Your task to perform on an android device: Where can I buy a nice beach bag? Image 0: 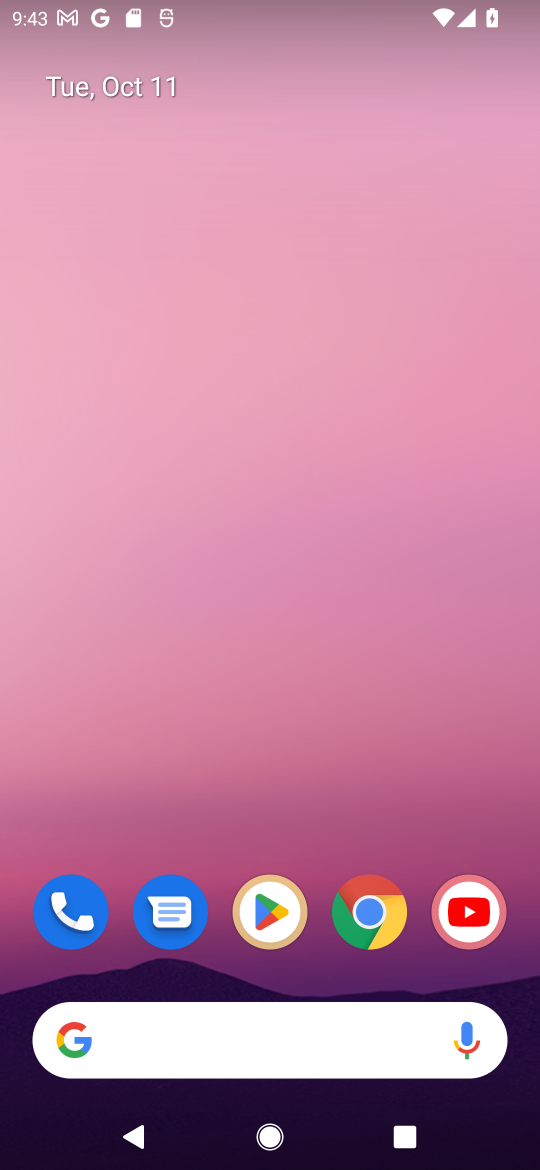
Step 0: click (368, 915)
Your task to perform on an android device: Where can I buy a nice beach bag? Image 1: 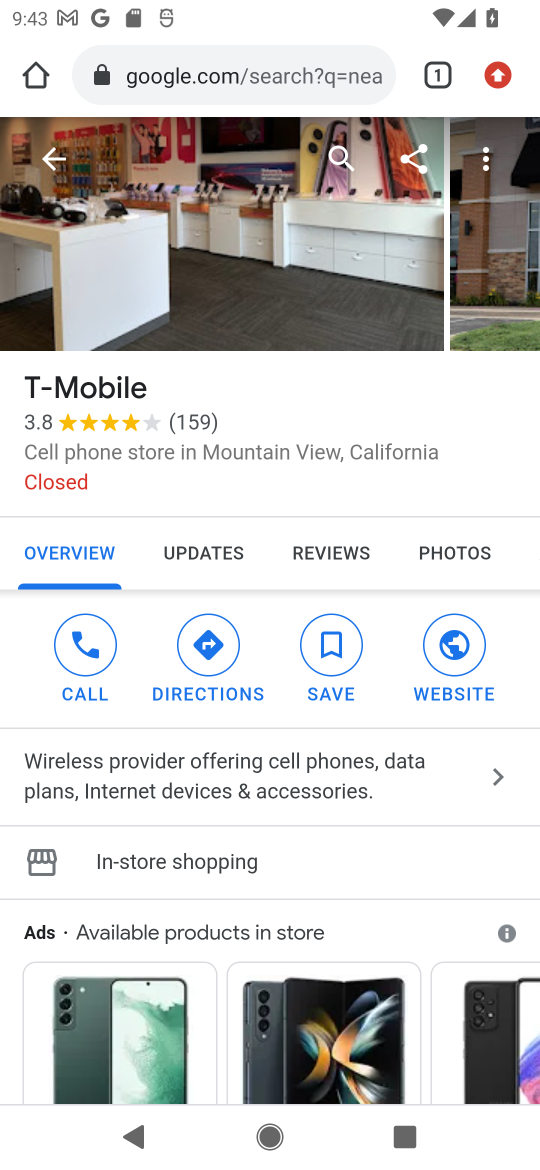
Step 1: click (242, 58)
Your task to perform on an android device: Where can I buy a nice beach bag? Image 2: 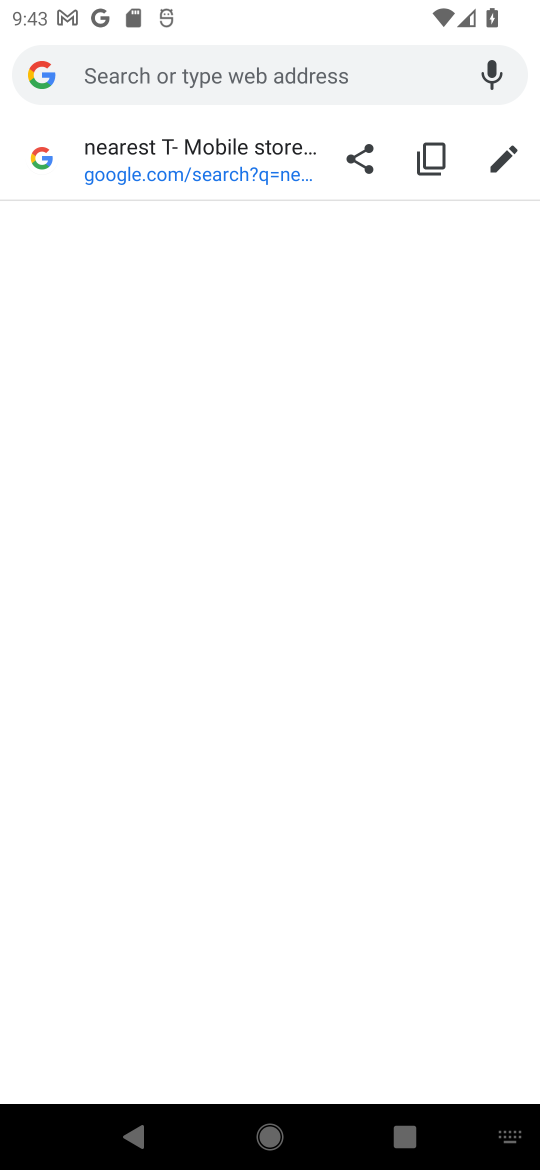
Step 2: type "nice beach bag?"
Your task to perform on an android device: Where can I buy a nice beach bag? Image 3: 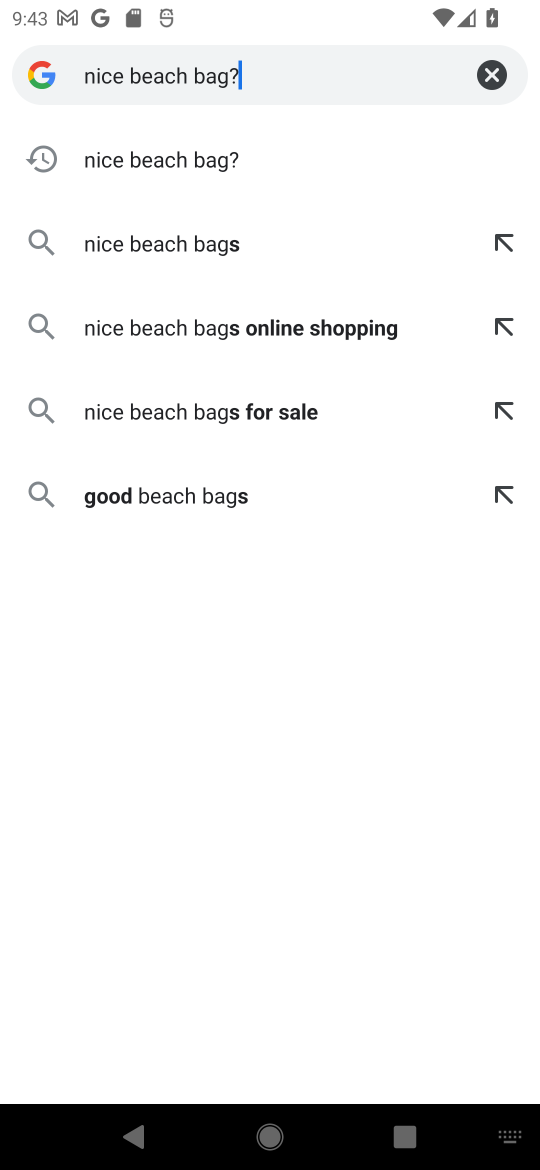
Step 3: click (148, 165)
Your task to perform on an android device: Where can I buy a nice beach bag? Image 4: 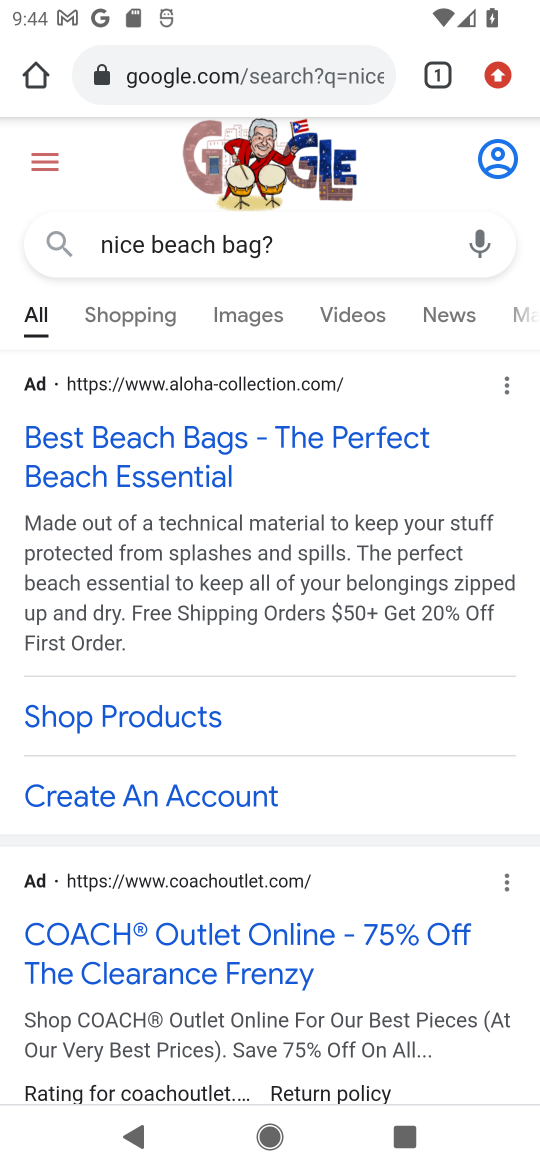
Step 4: drag from (252, 866) to (267, 624)
Your task to perform on an android device: Where can I buy a nice beach bag? Image 5: 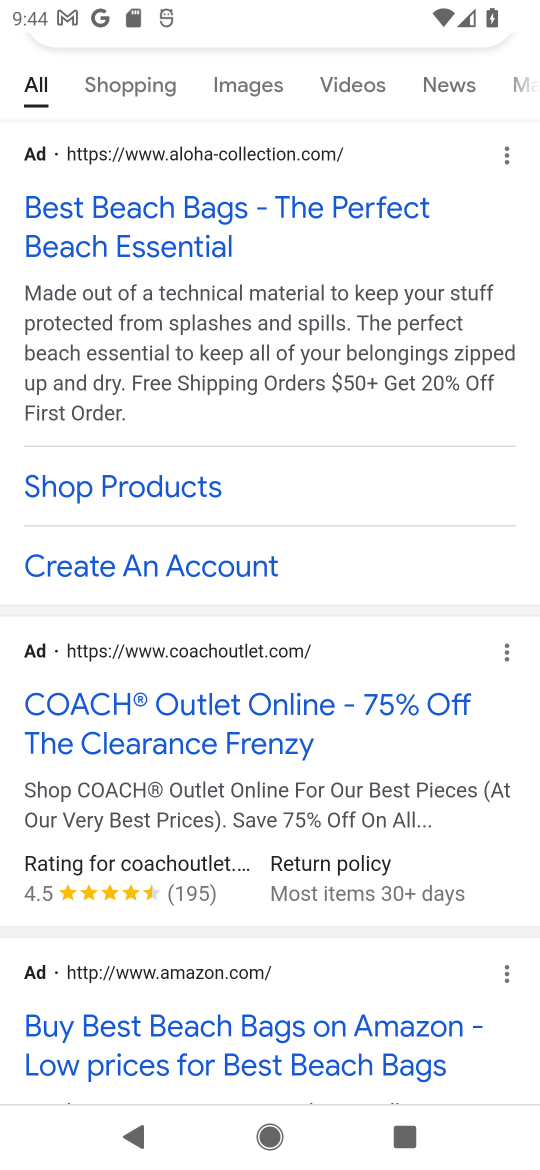
Step 5: click (115, 222)
Your task to perform on an android device: Where can I buy a nice beach bag? Image 6: 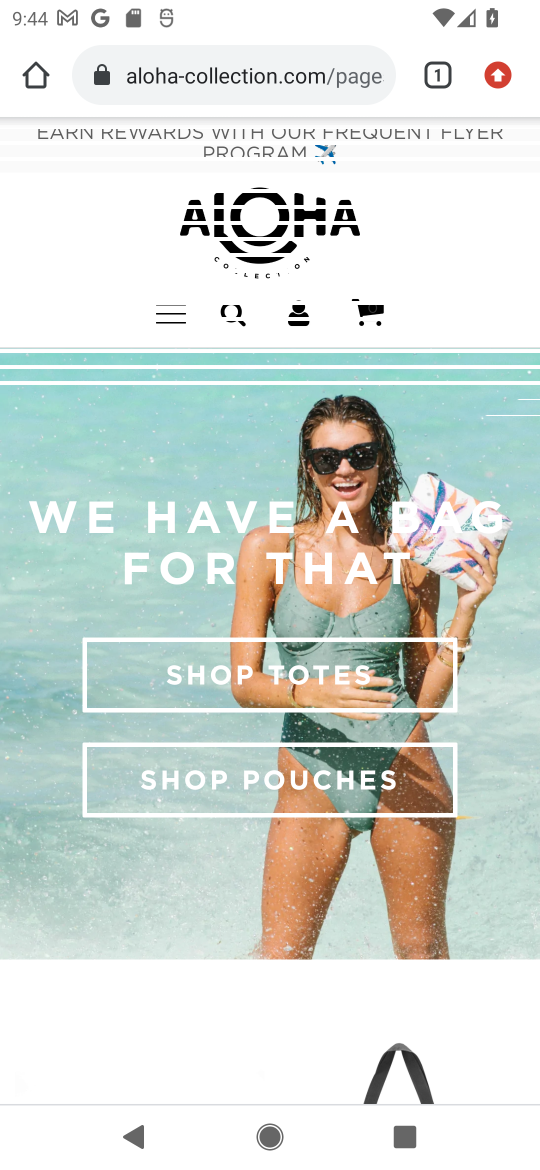
Step 6: task complete